Your task to perform on an android device: toggle airplane mode Image 0: 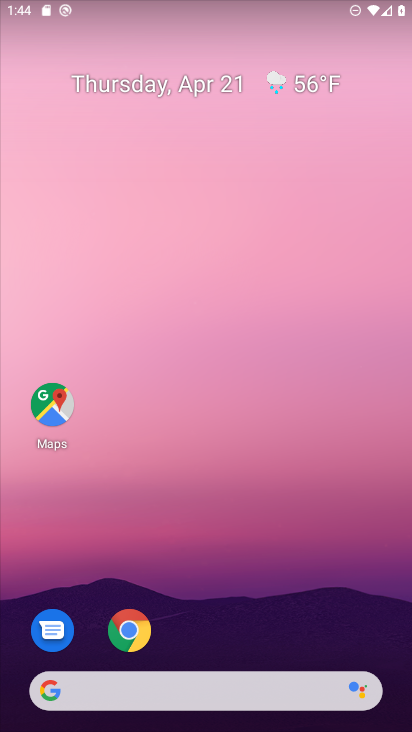
Step 0: drag from (220, 672) to (344, 0)
Your task to perform on an android device: toggle airplane mode Image 1: 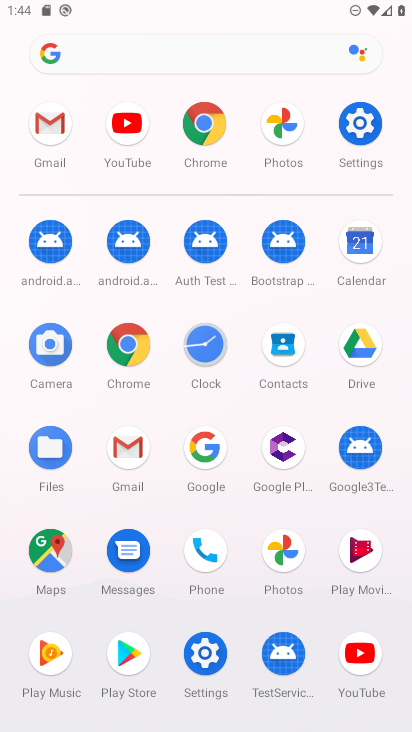
Step 1: click (361, 126)
Your task to perform on an android device: toggle airplane mode Image 2: 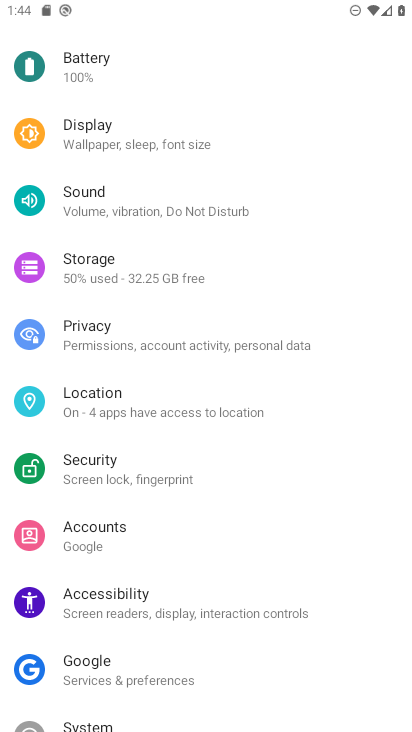
Step 2: drag from (190, 105) to (240, 724)
Your task to perform on an android device: toggle airplane mode Image 3: 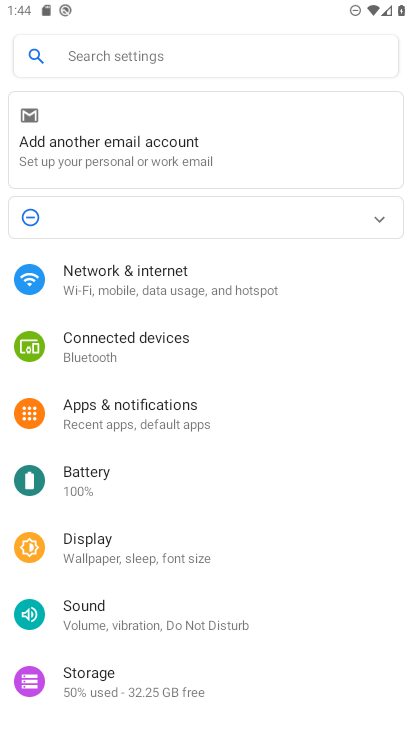
Step 3: click (146, 268)
Your task to perform on an android device: toggle airplane mode Image 4: 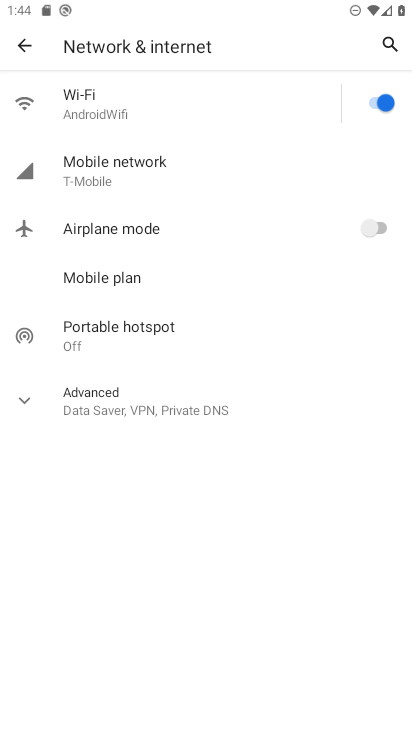
Step 4: click (371, 233)
Your task to perform on an android device: toggle airplane mode Image 5: 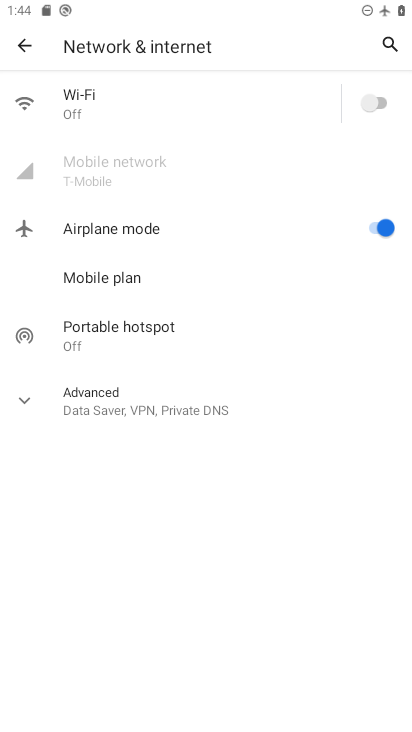
Step 5: task complete